Your task to perform on an android device: search for starred emails in the gmail app Image 0: 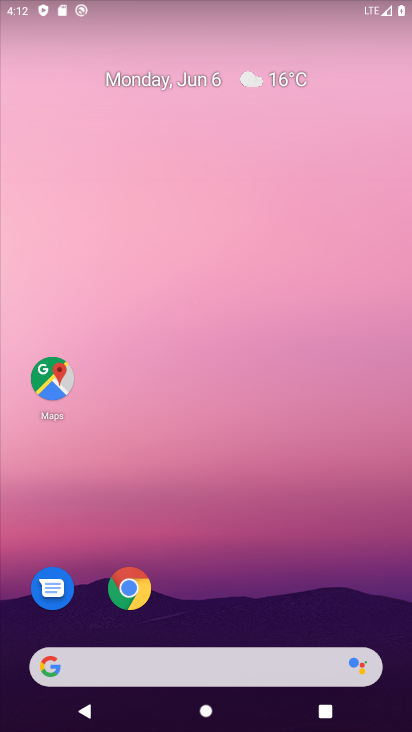
Step 0: click (213, 240)
Your task to perform on an android device: search for starred emails in the gmail app Image 1: 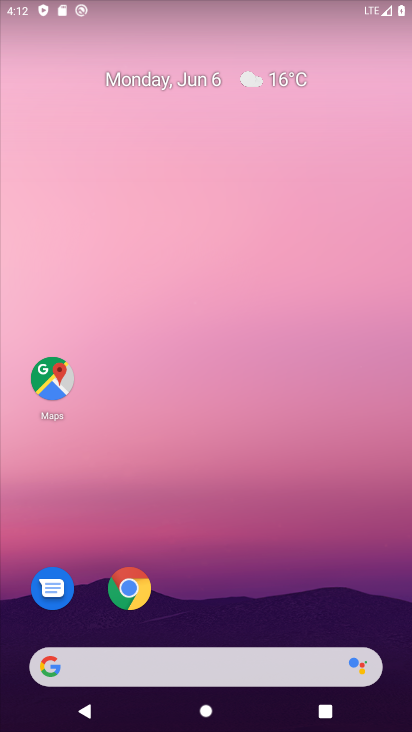
Step 1: click (272, 262)
Your task to perform on an android device: search for starred emails in the gmail app Image 2: 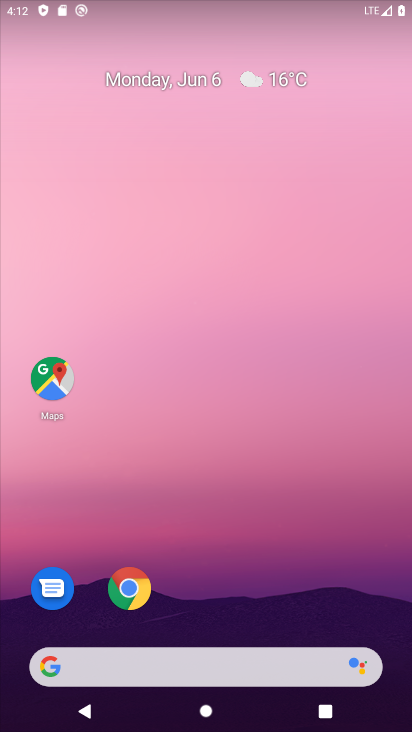
Step 2: click (186, 144)
Your task to perform on an android device: search for starred emails in the gmail app Image 3: 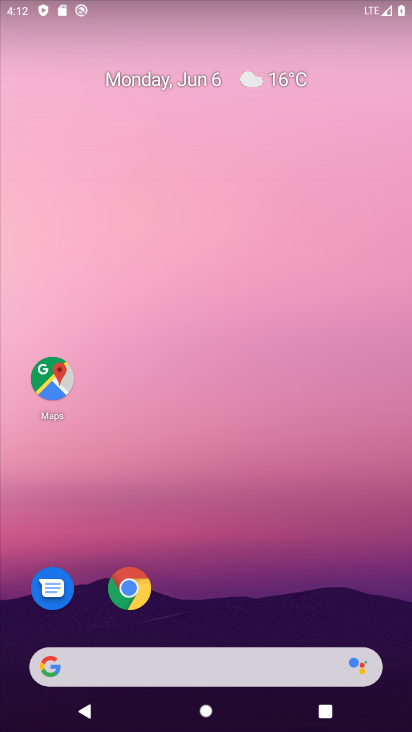
Step 3: drag from (254, 625) to (249, 70)
Your task to perform on an android device: search for starred emails in the gmail app Image 4: 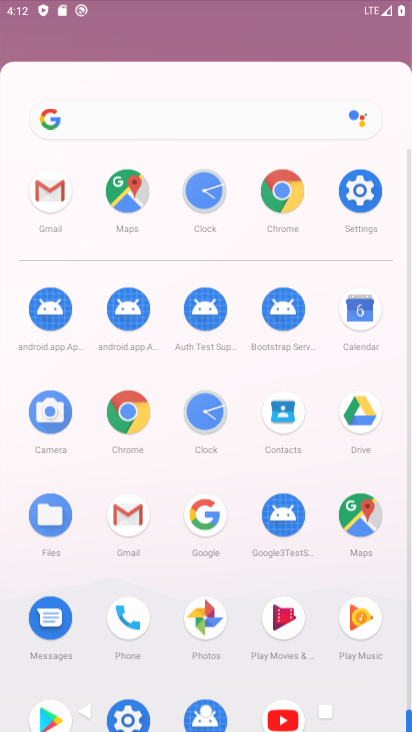
Step 4: drag from (265, 329) to (225, 44)
Your task to perform on an android device: search for starred emails in the gmail app Image 5: 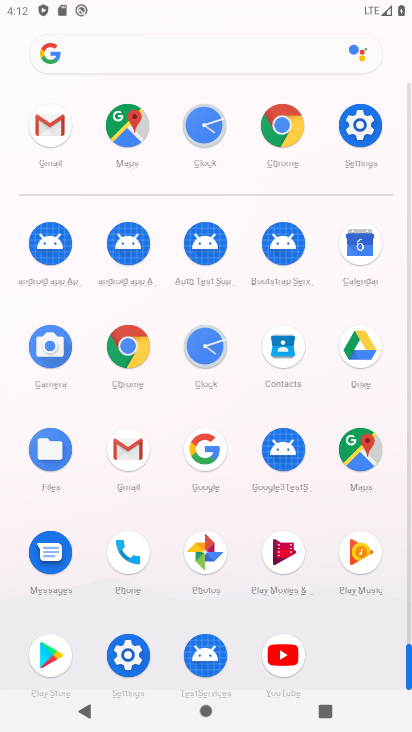
Step 5: click (217, 74)
Your task to perform on an android device: search for starred emails in the gmail app Image 6: 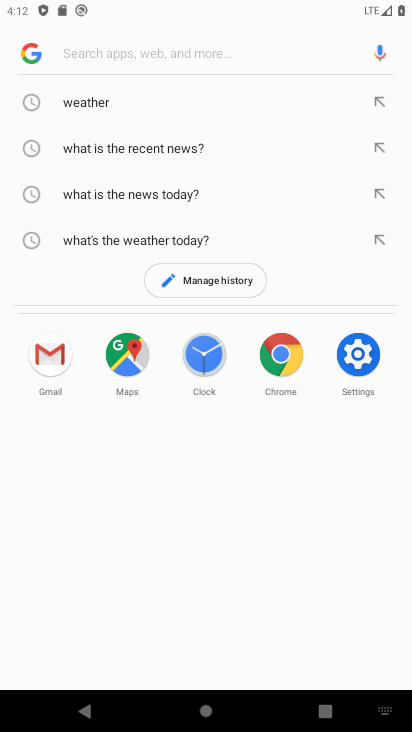
Step 6: press back button
Your task to perform on an android device: search for starred emails in the gmail app Image 7: 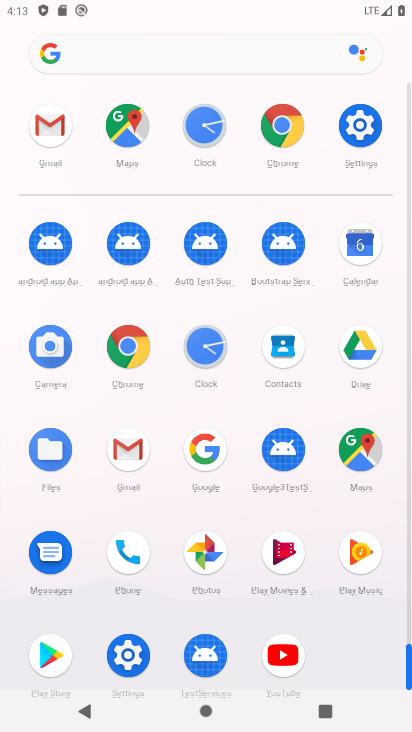
Step 7: click (105, 457)
Your task to perform on an android device: search for starred emails in the gmail app Image 8: 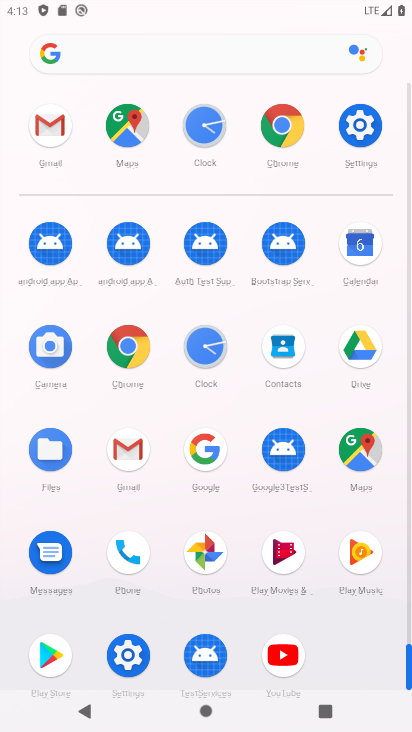
Step 8: click (110, 448)
Your task to perform on an android device: search for starred emails in the gmail app Image 9: 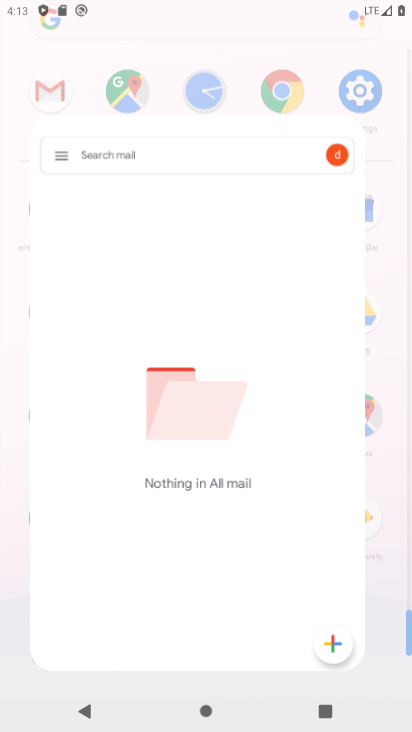
Step 9: click (110, 448)
Your task to perform on an android device: search for starred emails in the gmail app Image 10: 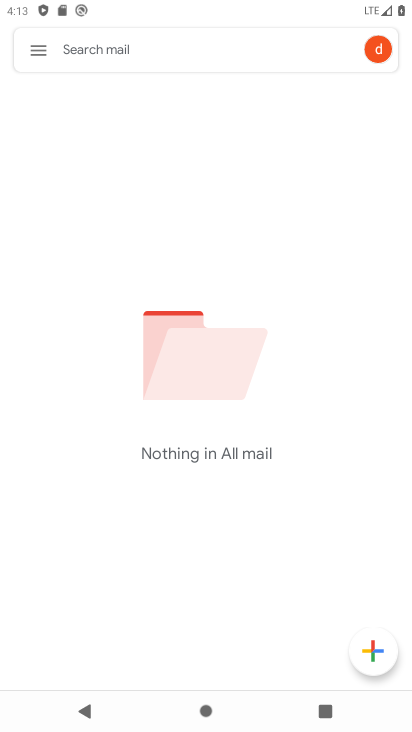
Step 10: click (111, 444)
Your task to perform on an android device: search for starred emails in the gmail app Image 11: 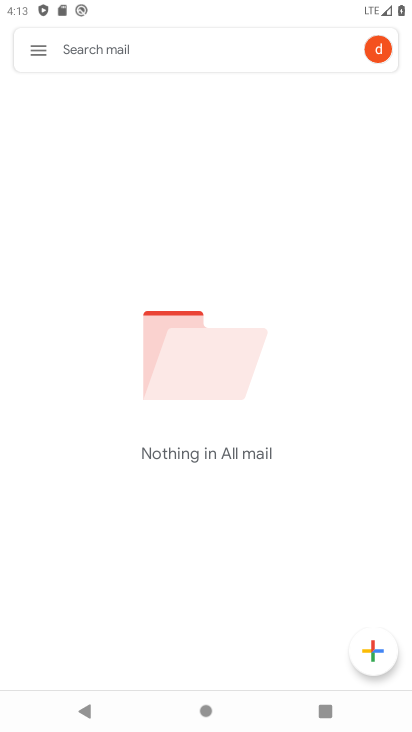
Step 11: click (25, 49)
Your task to perform on an android device: search for starred emails in the gmail app Image 12: 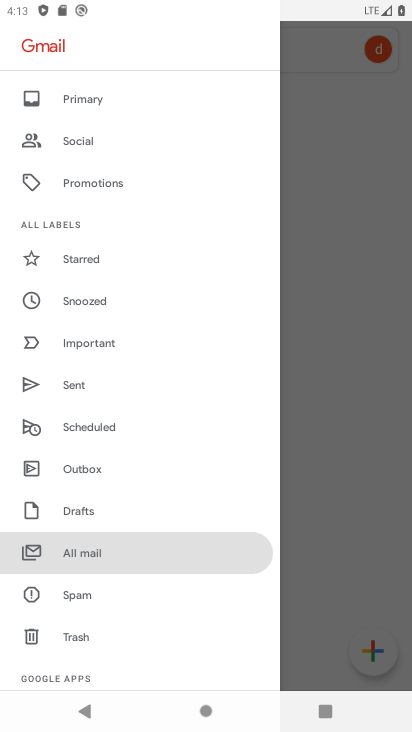
Step 12: click (79, 263)
Your task to perform on an android device: search for starred emails in the gmail app Image 13: 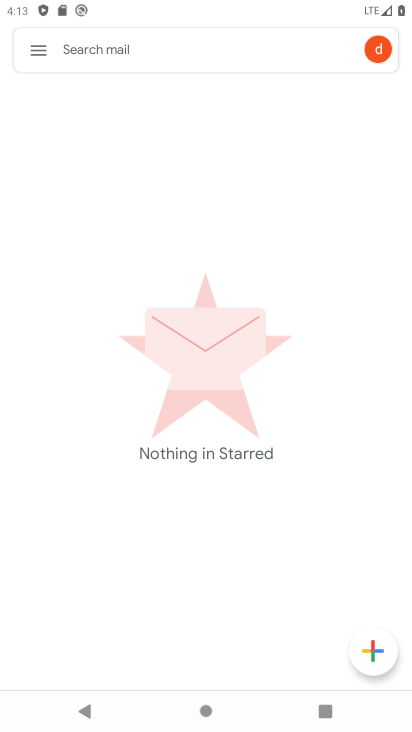
Step 13: task complete